Your task to perform on an android device: Open battery settings Image 0: 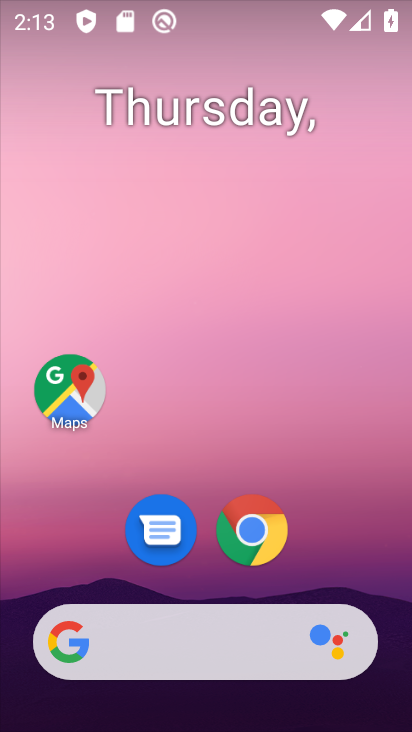
Step 0: drag from (181, 710) to (317, 92)
Your task to perform on an android device: Open battery settings Image 1: 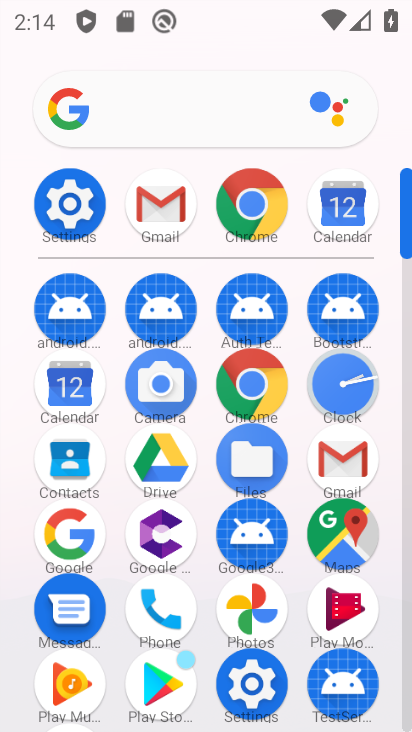
Step 1: click (57, 199)
Your task to perform on an android device: Open battery settings Image 2: 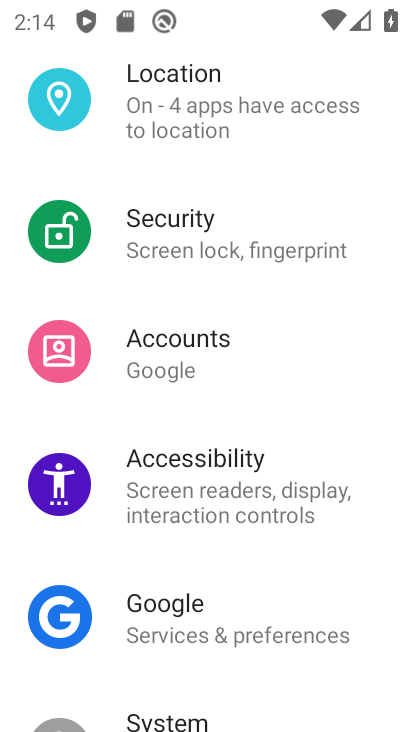
Step 2: drag from (295, 128) to (271, 544)
Your task to perform on an android device: Open battery settings Image 3: 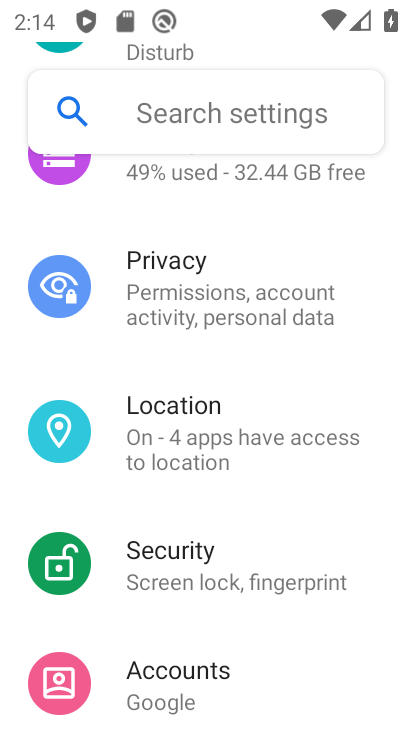
Step 3: drag from (325, 250) to (363, 688)
Your task to perform on an android device: Open battery settings Image 4: 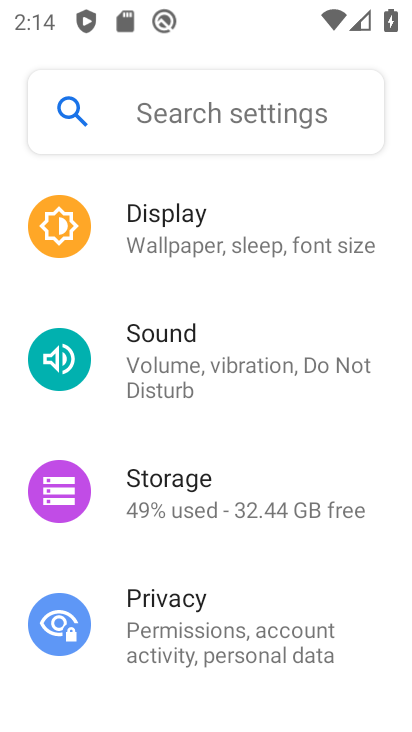
Step 4: drag from (306, 327) to (292, 706)
Your task to perform on an android device: Open battery settings Image 5: 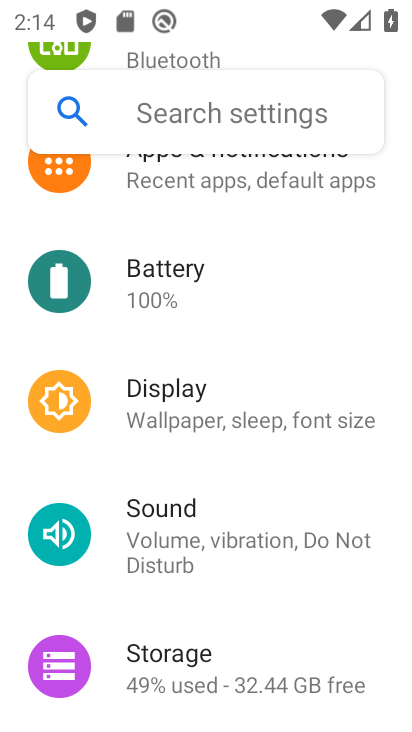
Step 5: click (189, 280)
Your task to perform on an android device: Open battery settings Image 6: 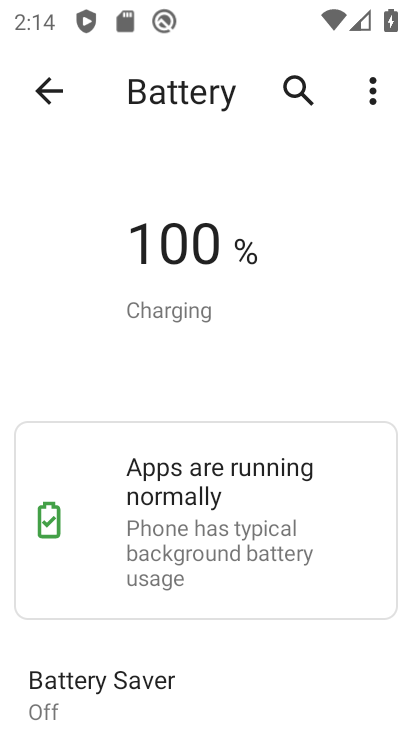
Step 6: task complete